Your task to perform on an android device: turn on notifications settings in the gmail app Image 0: 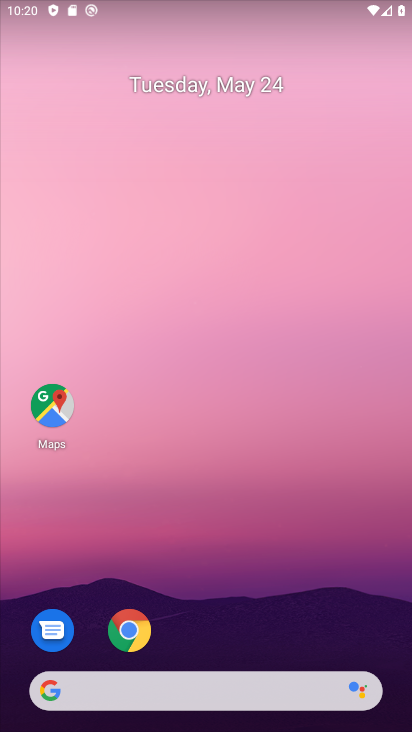
Step 0: press home button
Your task to perform on an android device: turn on notifications settings in the gmail app Image 1: 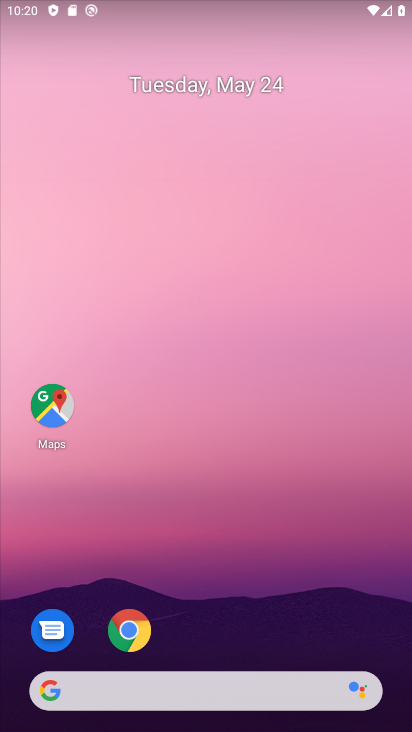
Step 1: drag from (201, 643) to (242, 1)
Your task to perform on an android device: turn on notifications settings in the gmail app Image 2: 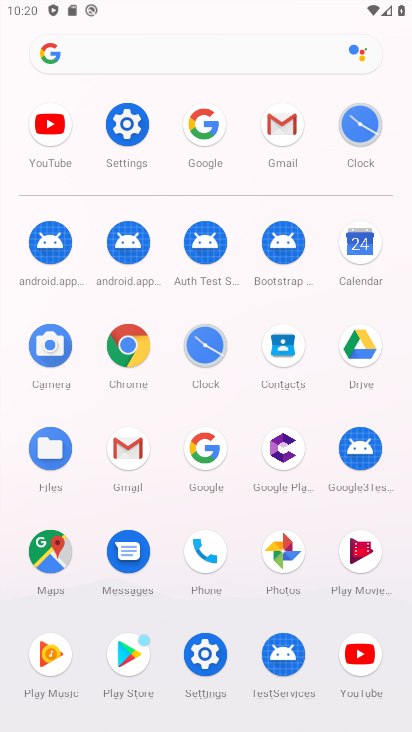
Step 2: click (279, 115)
Your task to perform on an android device: turn on notifications settings in the gmail app Image 3: 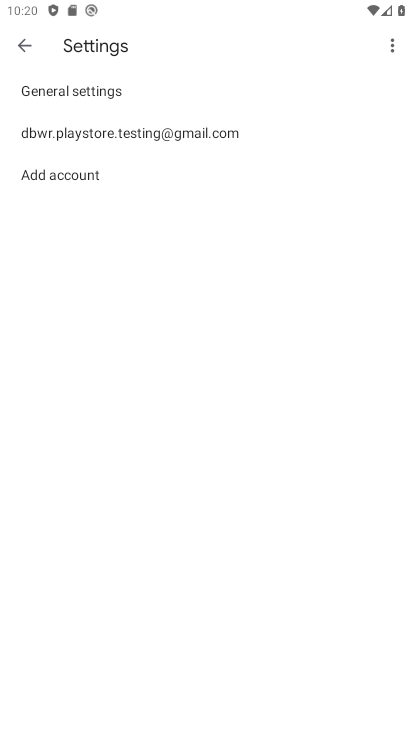
Step 3: click (129, 85)
Your task to perform on an android device: turn on notifications settings in the gmail app Image 4: 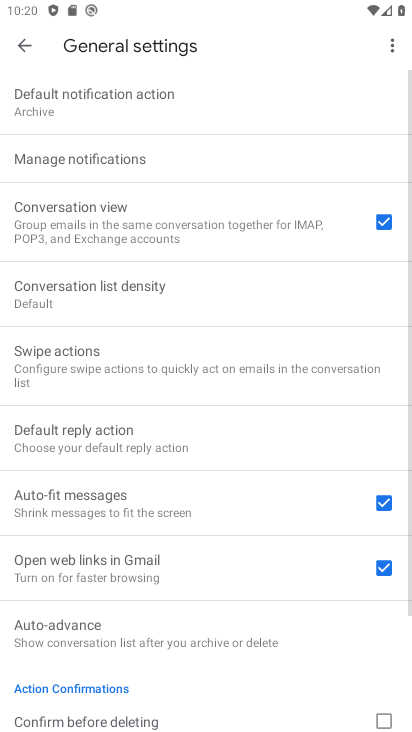
Step 4: click (163, 150)
Your task to perform on an android device: turn on notifications settings in the gmail app Image 5: 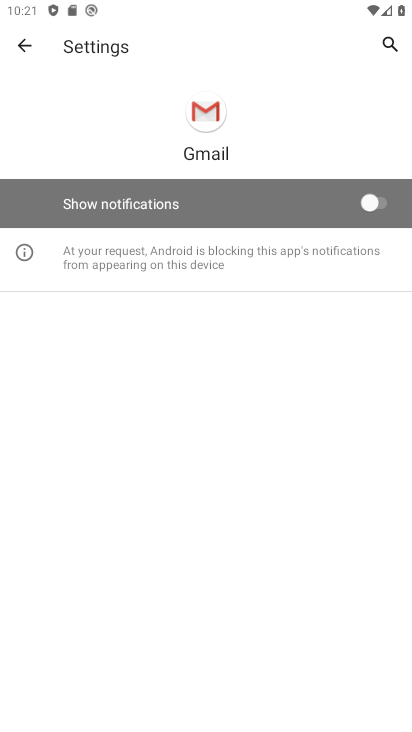
Step 5: click (381, 201)
Your task to perform on an android device: turn on notifications settings in the gmail app Image 6: 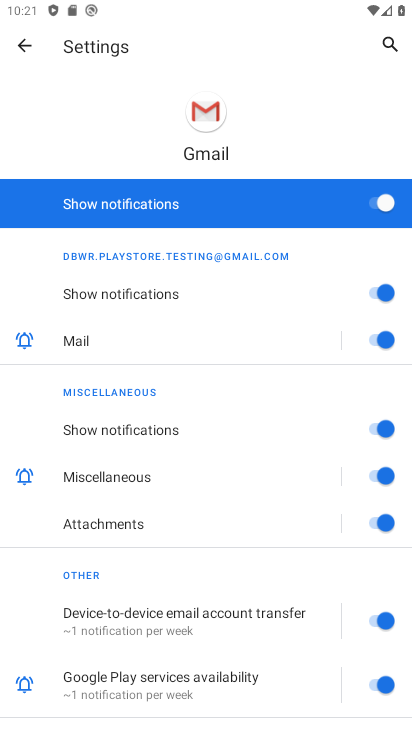
Step 6: task complete